Your task to perform on an android device: toggle pop-ups in chrome Image 0: 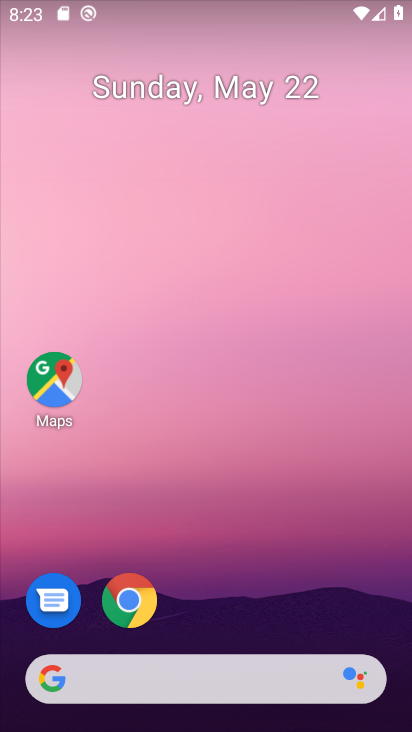
Step 0: click (129, 569)
Your task to perform on an android device: toggle pop-ups in chrome Image 1: 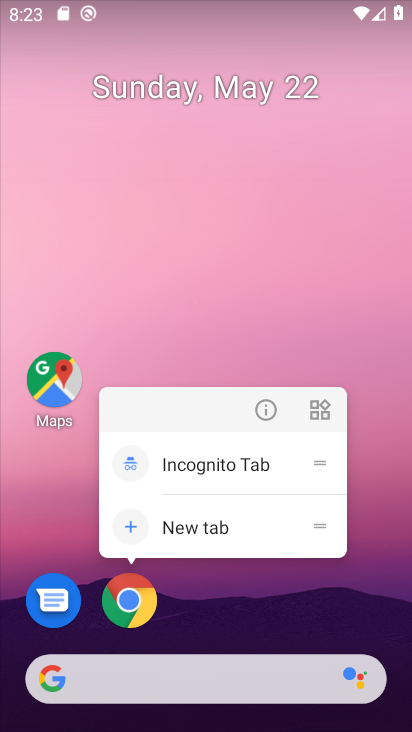
Step 1: click (131, 603)
Your task to perform on an android device: toggle pop-ups in chrome Image 2: 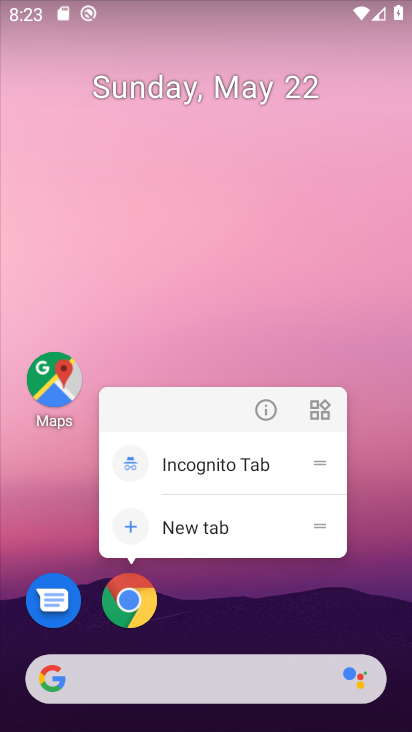
Step 2: click (122, 591)
Your task to perform on an android device: toggle pop-ups in chrome Image 3: 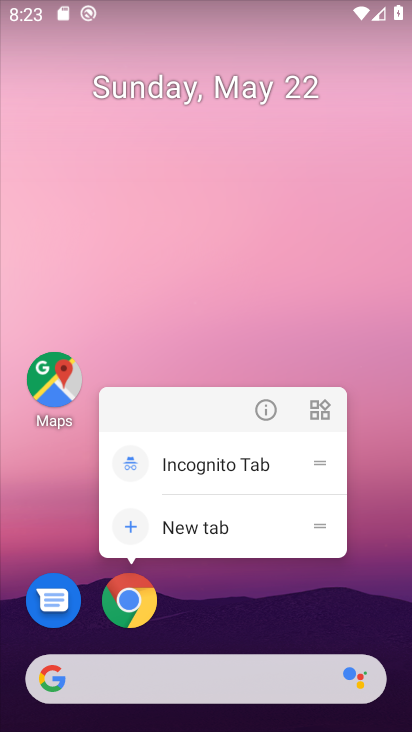
Step 3: click (127, 603)
Your task to perform on an android device: toggle pop-ups in chrome Image 4: 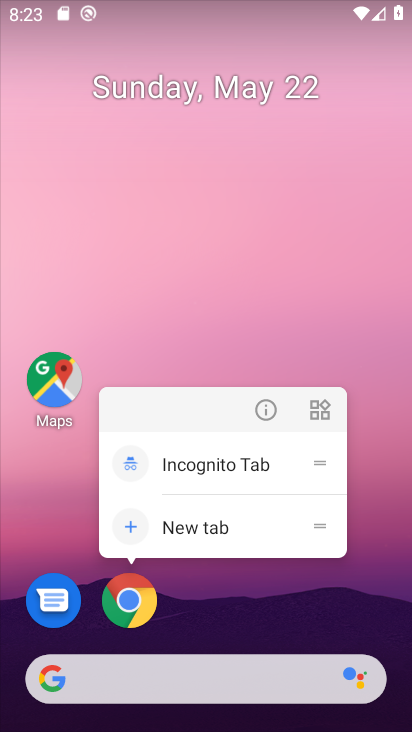
Step 4: click (128, 618)
Your task to perform on an android device: toggle pop-ups in chrome Image 5: 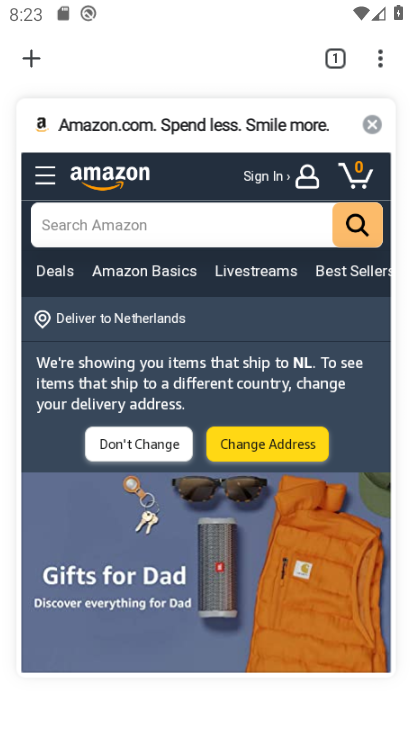
Step 5: click (385, 45)
Your task to perform on an android device: toggle pop-ups in chrome Image 6: 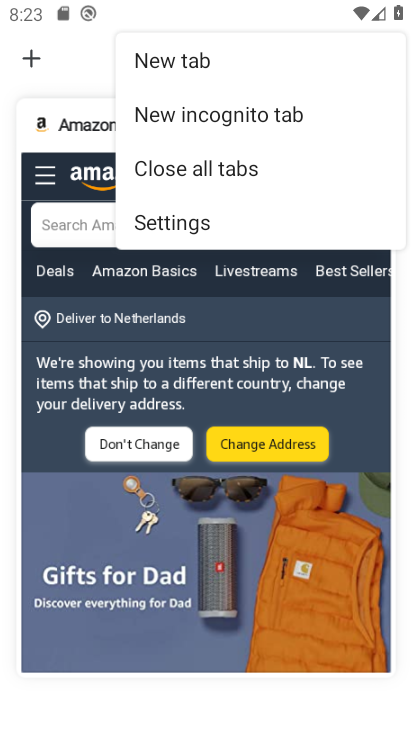
Step 6: click (214, 230)
Your task to perform on an android device: toggle pop-ups in chrome Image 7: 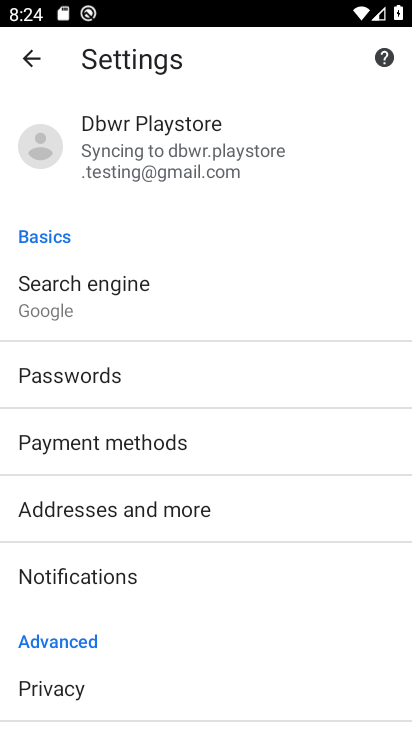
Step 7: drag from (105, 679) to (141, 278)
Your task to perform on an android device: toggle pop-ups in chrome Image 8: 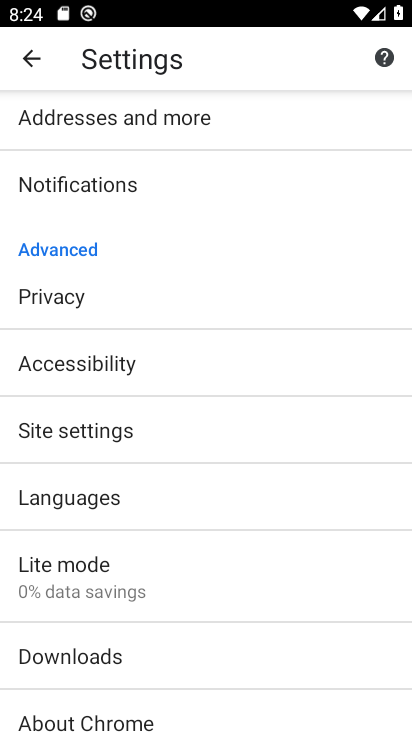
Step 8: click (83, 444)
Your task to perform on an android device: toggle pop-ups in chrome Image 9: 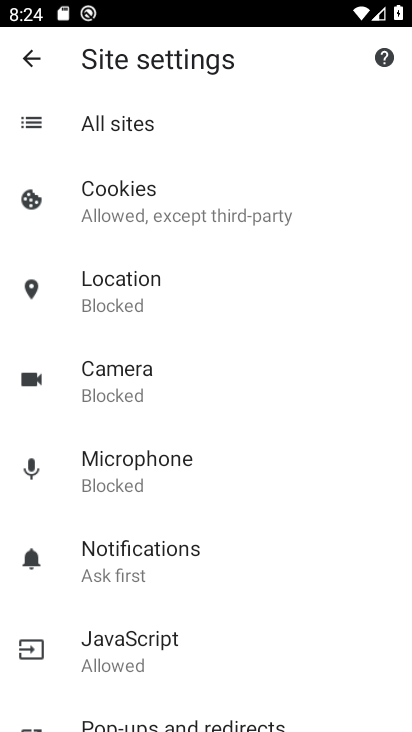
Step 9: drag from (130, 679) to (143, 364)
Your task to perform on an android device: toggle pop-ups in chrome Image 10: 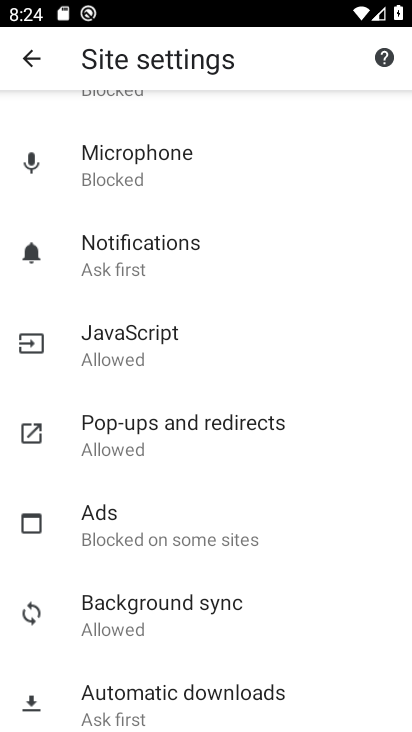
Step 10: click (126, 436)
Your task to perform on an android device: toggle pop-ups in chrome Image 11: 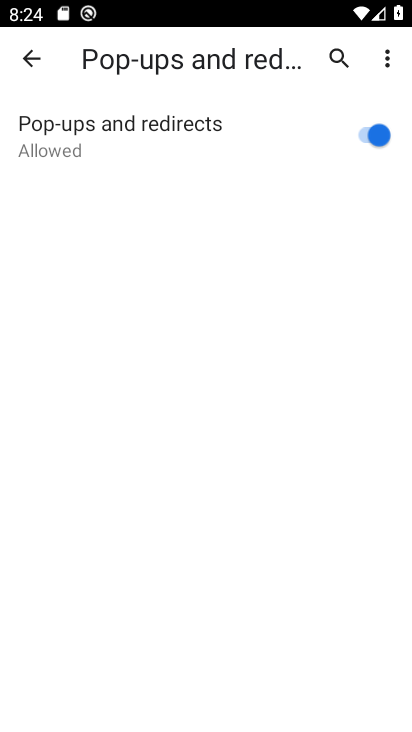
Step 11: click (369, 133)
Your task to perform on an android device: toggle pop-ups in chrome Image 12: 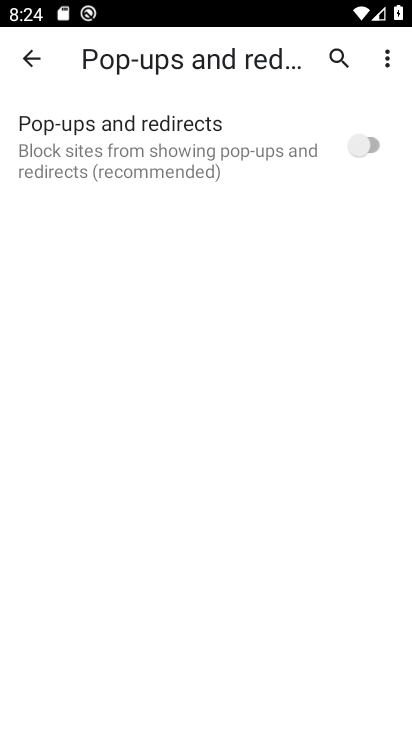
Step 12: task complete